Your task to perform on an android device: Go to display settings Image 0: 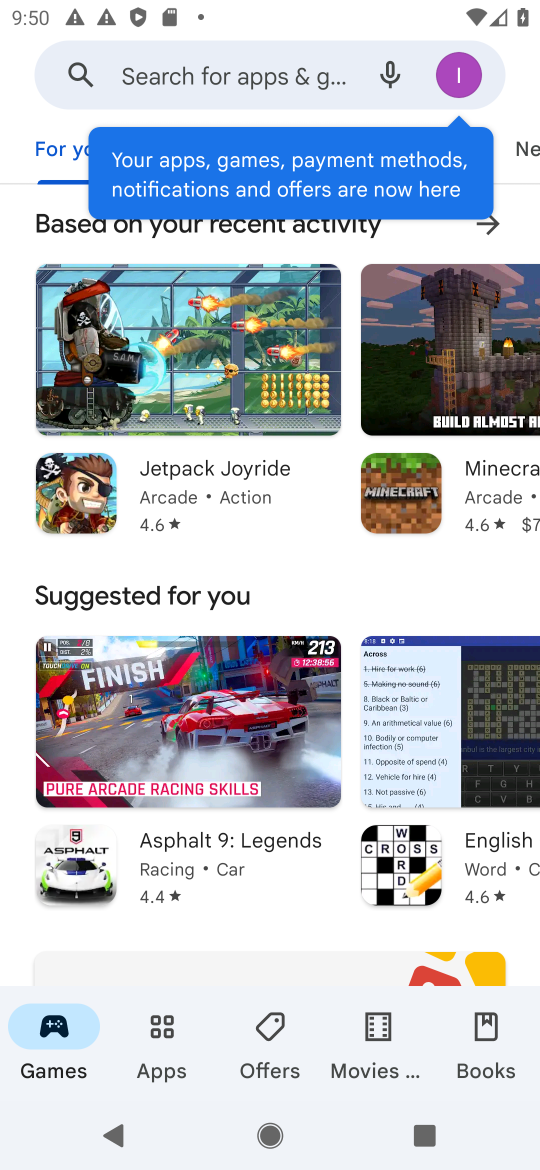
Step 0: press home button
Your task to perform on an android device: Go to display settings Image 1: 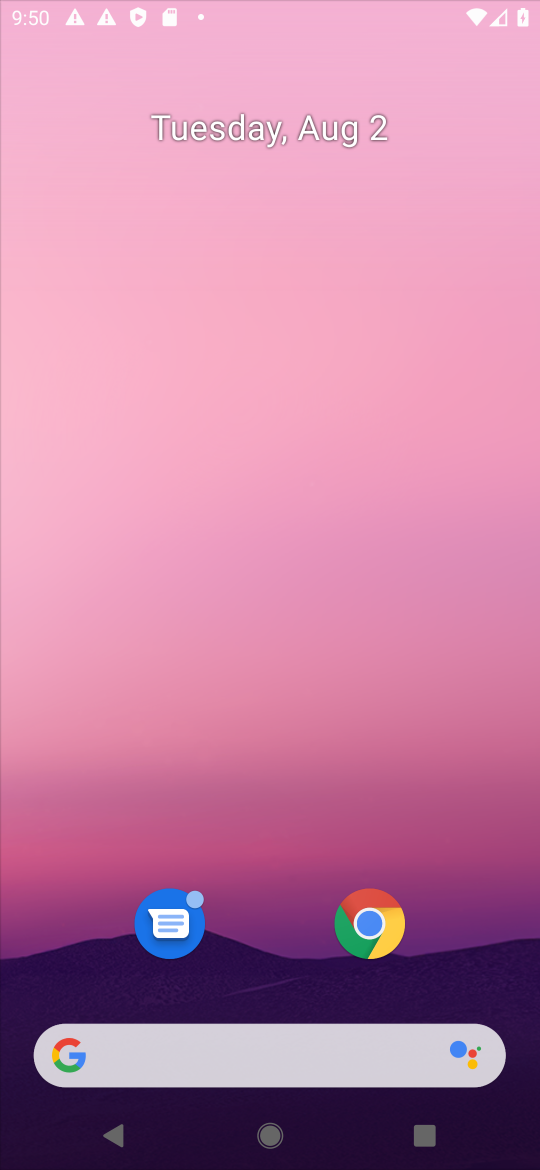
Step 1: press home button
Your task to perform on an android device: Go to display settings Image 2: 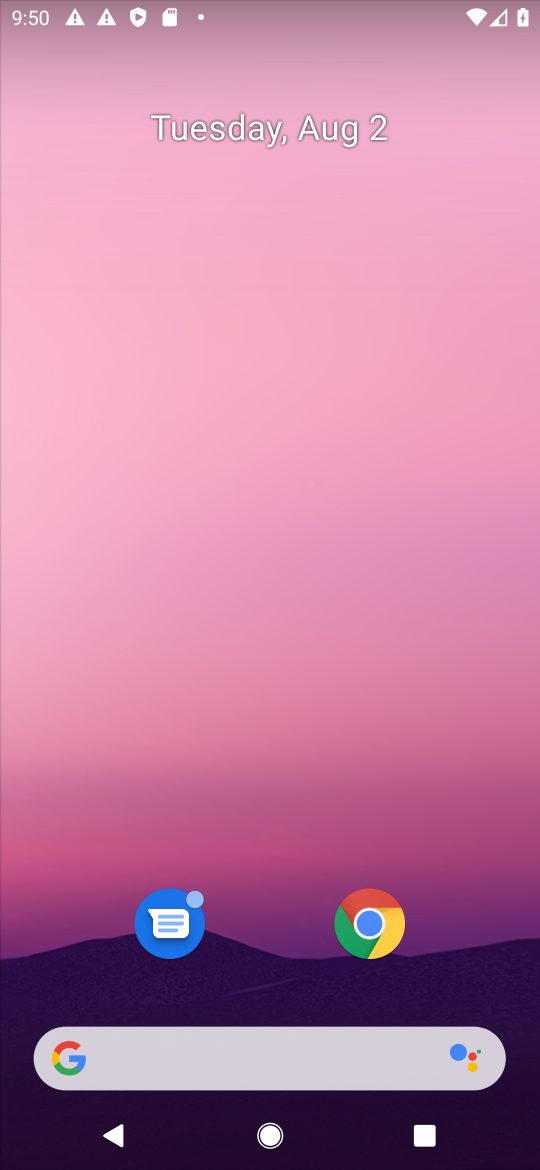
Step 2: drag from (272, 914) to (296, 96)
Your task to perform on an android device: Go to display settings Image 3: 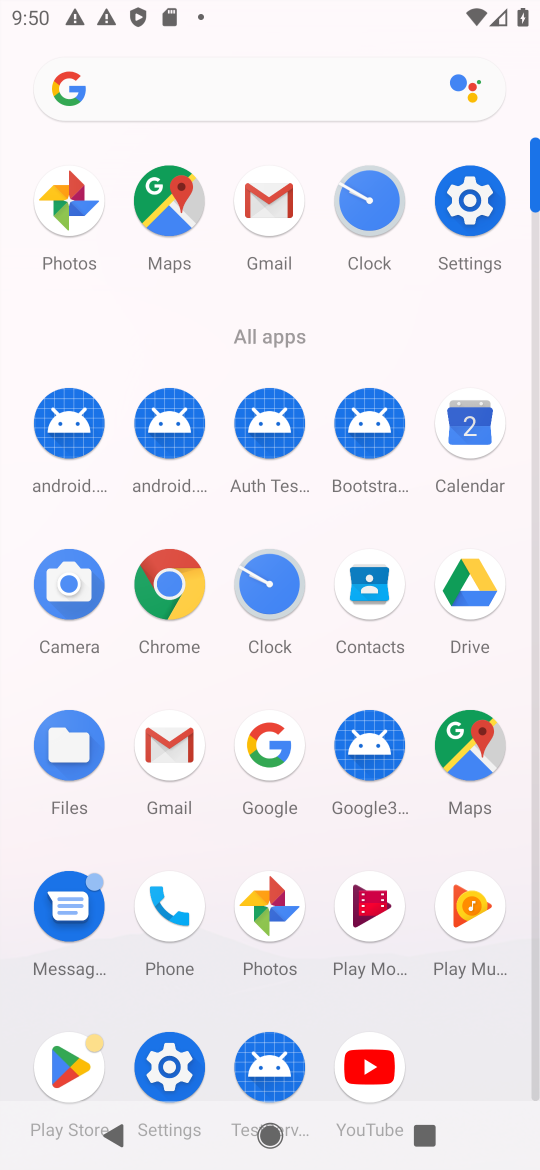
Step 3: click (456, 216)
Your task to perform on an android device: Go to display settings Image 4: 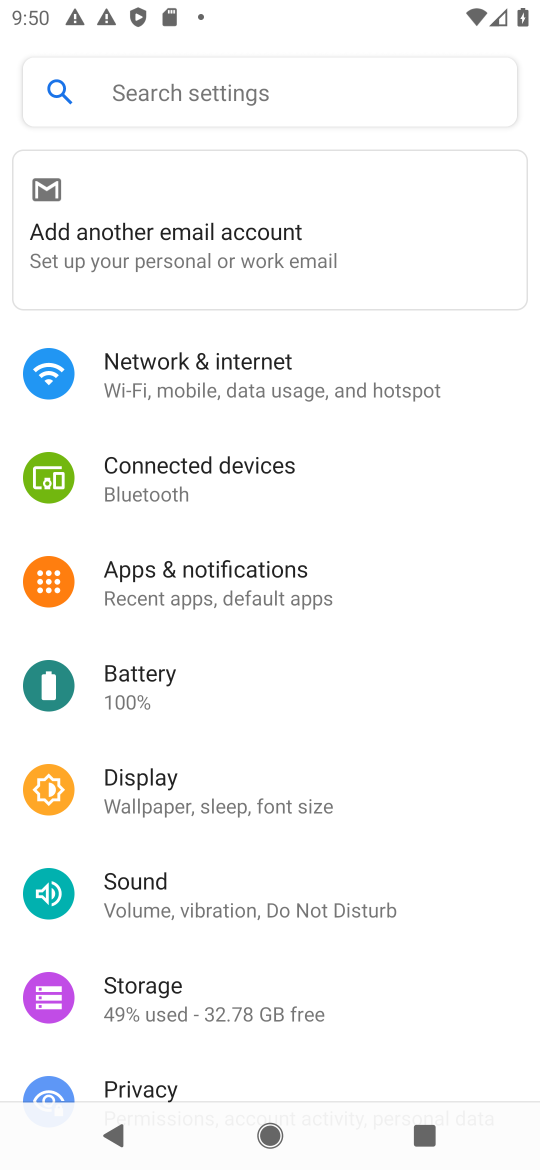
Step 4: click (182, 793)
Your task to perform on an android device: Go to display settings Image 5: 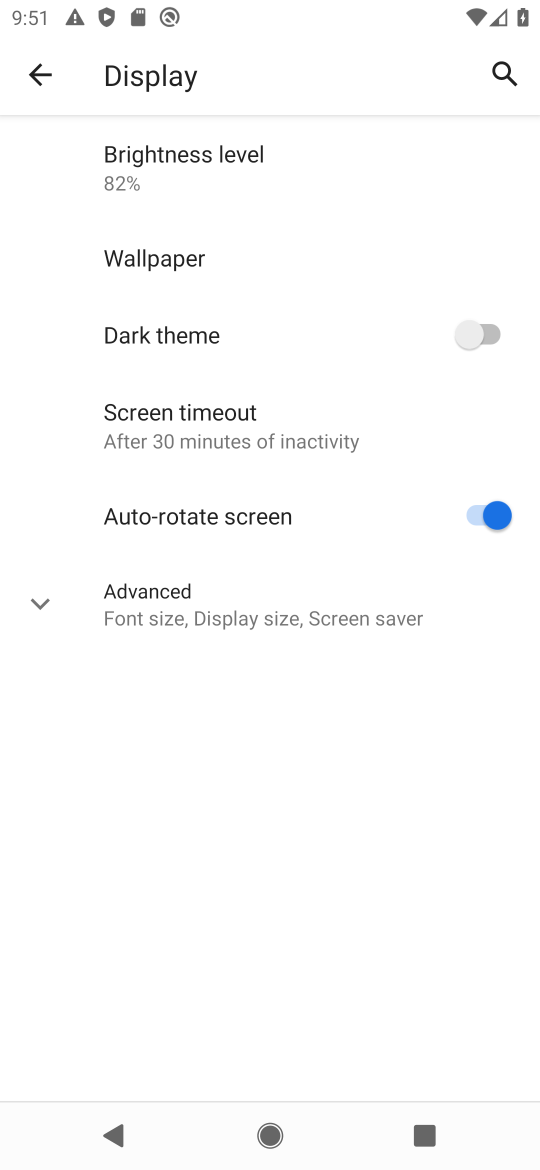
Step 5: task complete